Your task to perform on an android device: toggle priority inbox in the gmail app Image 0: 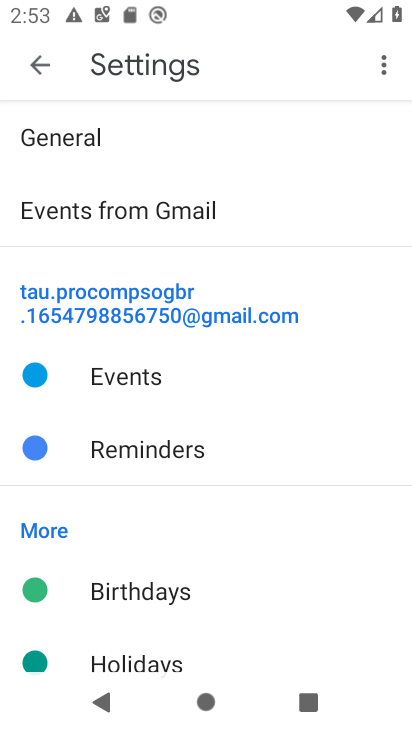
Step 0: press home button
Your task to perform on an android device: toggle priority inbox in the gmail app Image 1: 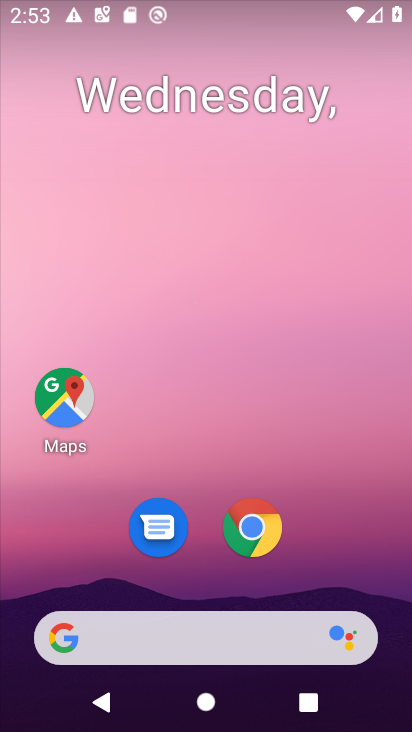
Step 1: drag from (242, 442) to (272, 70)
Your task to perform on an android device: toggle priority inbox in the gmail app Image 2: 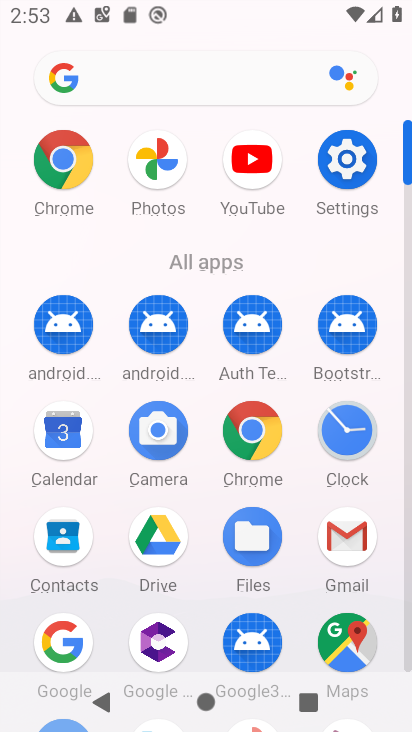
Step 2: click (351, 524)
Your task to perform on an android device: toggle priority inbox in the gmail app Image 3: 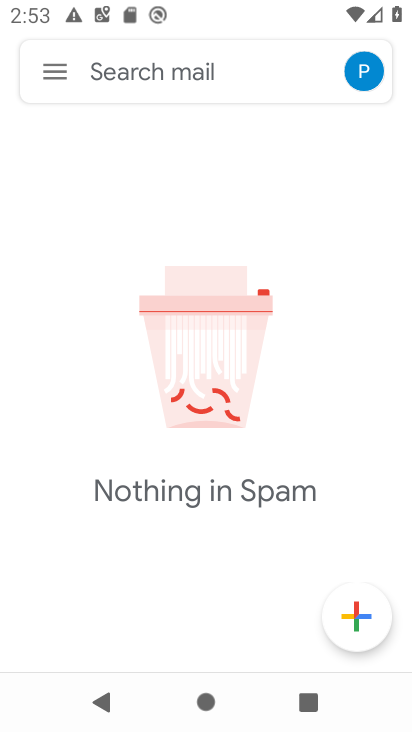
Step 3: click (56, 77)
Your task to perform on an android device: toggle priority inbox in the gmail app Image 4: 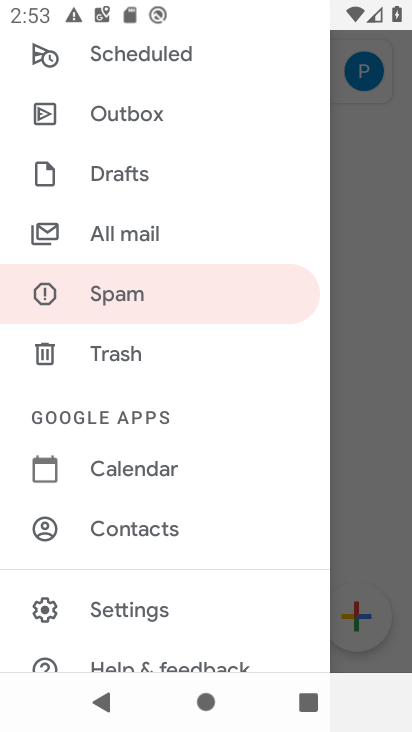
Step 4: click (136, 623)
Your task to perform on an android device: toggle priority inbox in the gmail app Image 5: 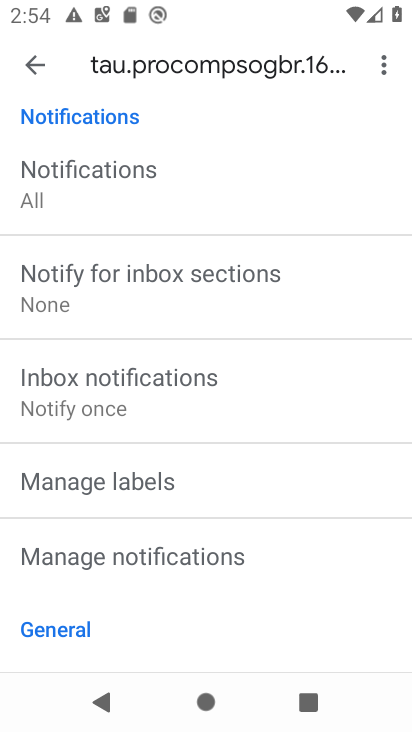
Step 5: drag from (256, 170) to (220, 588)
Your task to perform on an android device: toggle priority inbox in the gmail app Image 6: 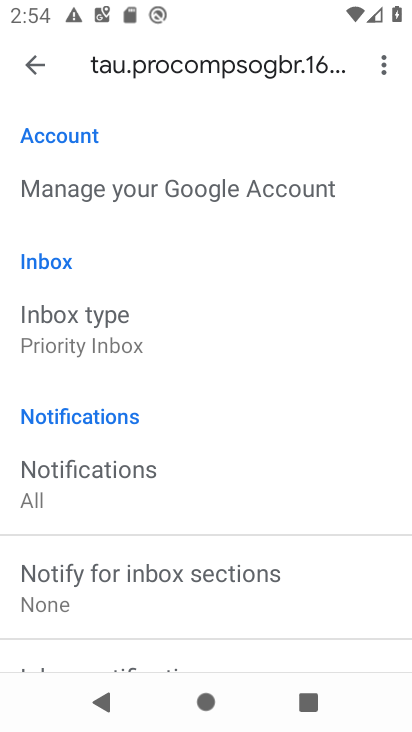
Step 6: click (78, 341)
Your task to perform on an android device: toggle priority inbox in the gmail app Image 7: 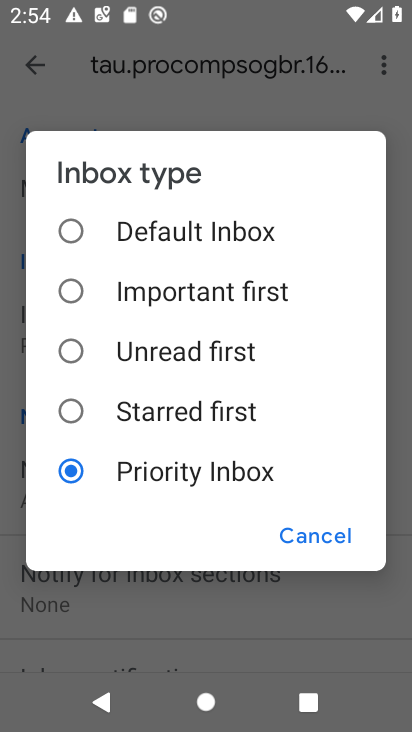
Step 7: click (167, 232)
Your task to perform on an android device: toggle priority inbox in the gmail app Image 8: 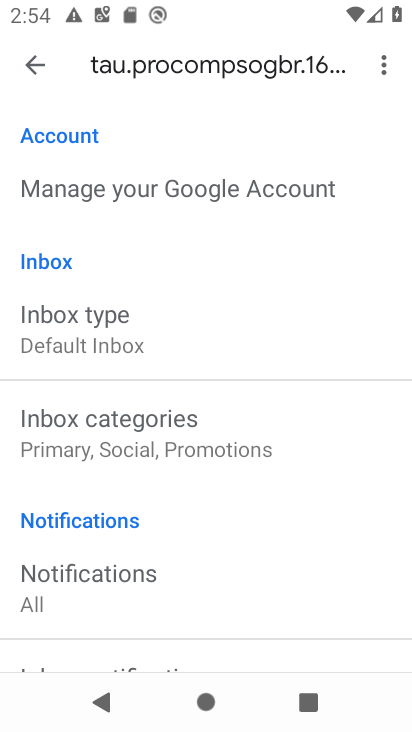
Step 8: task complete